Your task to perform on an android device: Open calendar and show me the fourth week of next month Image 0: 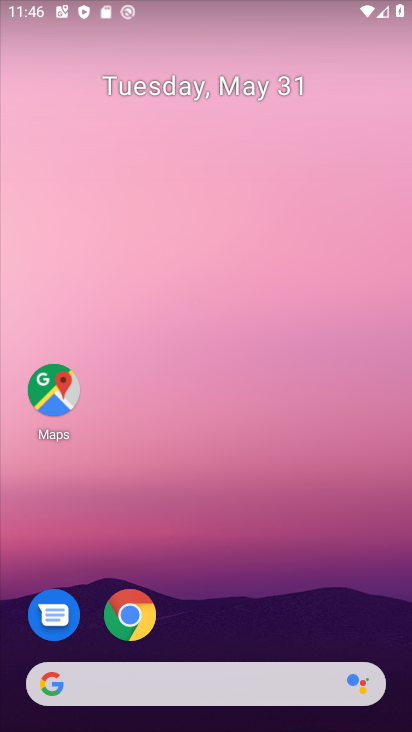
Step 0: task complete